Your task to perform on an android device: Open Maps and search for coffee Image 0: 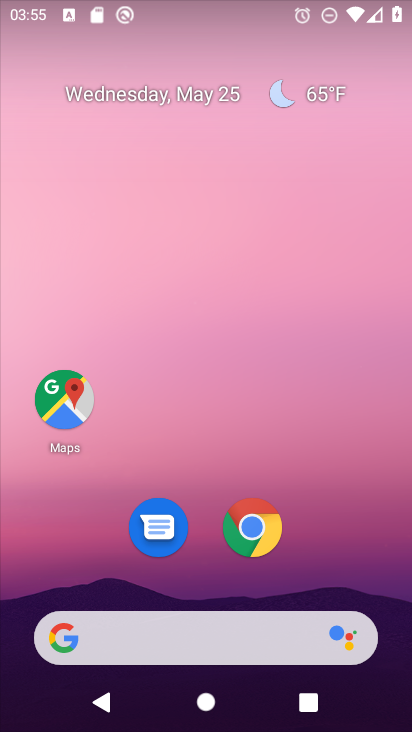
Step 0: drag from (168, 570) to (363, 0)
Your task to perform on an android device: Open Maps and search for coffee Image 1: 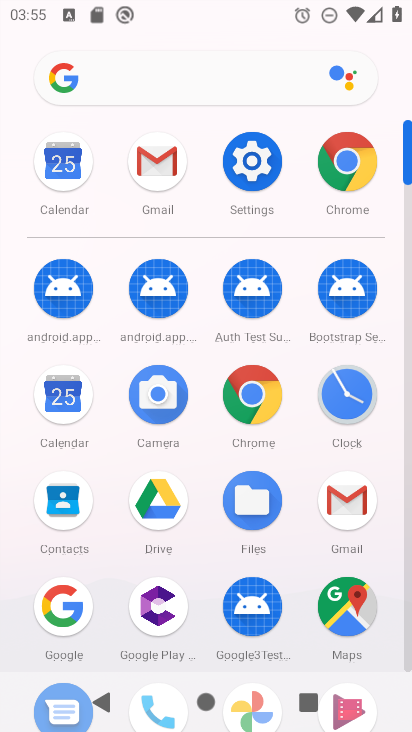
Step 1: click (358, 595)
Your task to perform on an android device: Open Maps and search for coffee Image 2: 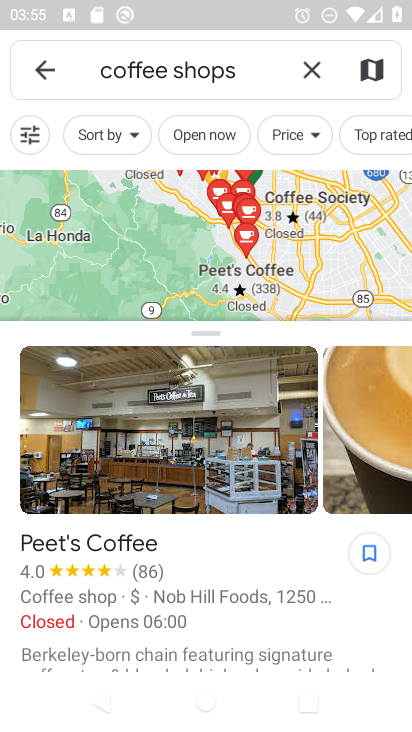
Step 2: press back button
Your task to perform on an android device: Open Maps and search for coffee Image 3: 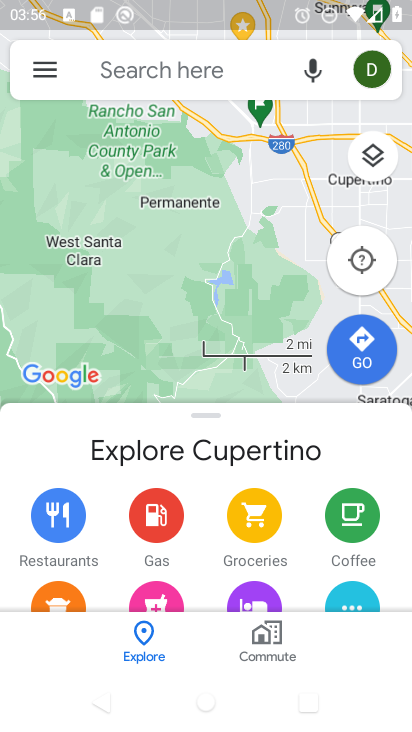
Step 3: click (28, 64)
Your task to perform on an android device: Open Maps and search for coffee Image 4: 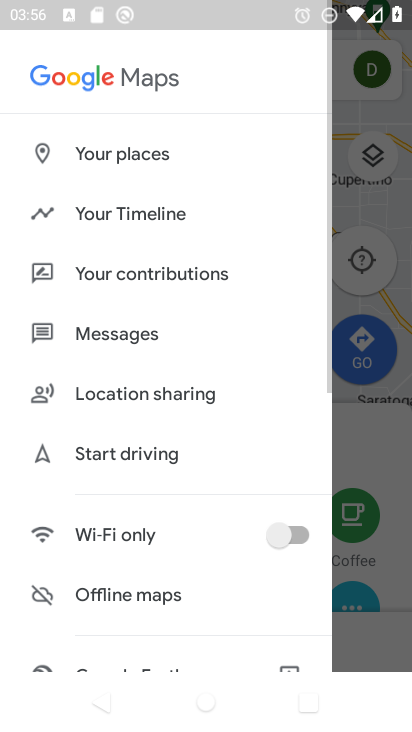
Step 4: drag from (213, 585) to (218, 274)
Your task to perform on an android device: Open Maps and search for coffee Image 5: 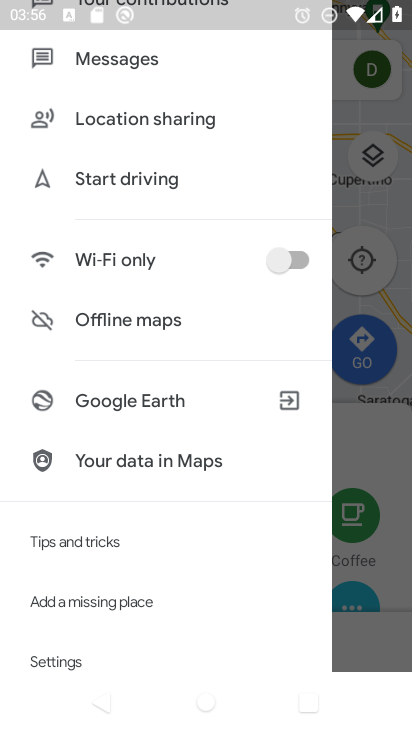
Step 5: click (403, 206)
Your task to perform on an android device: Open Maps and search for coffee Image 6: 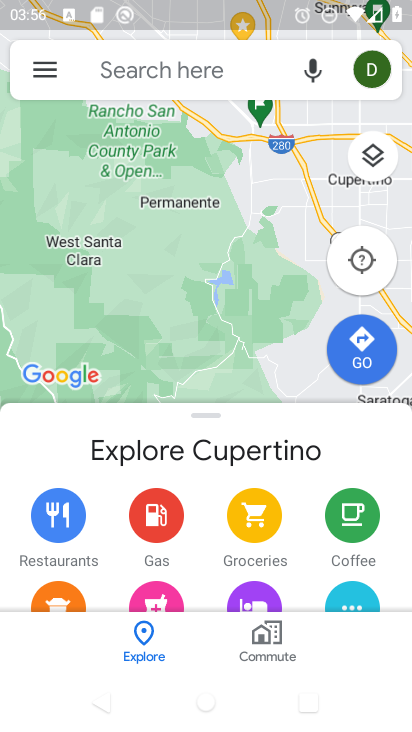
Step 6: click (226, 66)
Your task to perform on an android device: Open Maps and search for coffee Image 7: 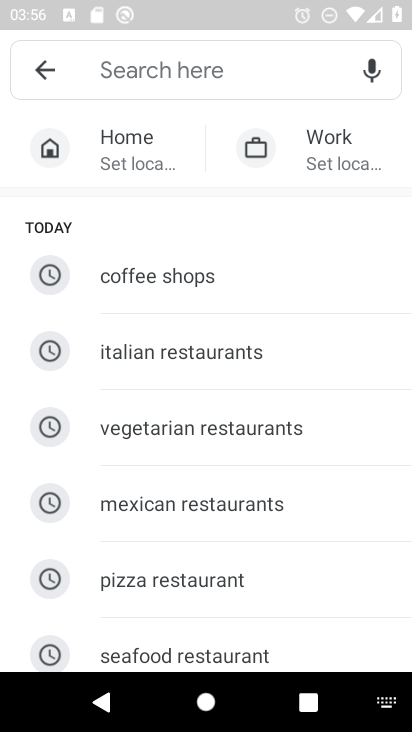
Step 7: type "coffee"
Your task to perform on an android device: Open Maps and search for coffee Image 8: 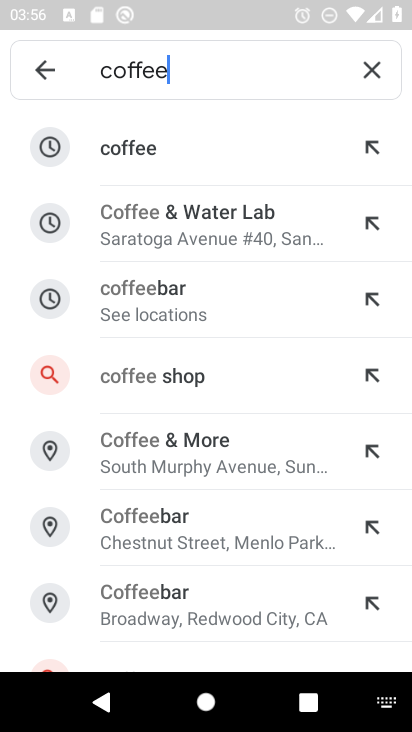
Step 8: click (205, 147)
Your task to perform on an android device: Open Maps and search for coffee Image 9: 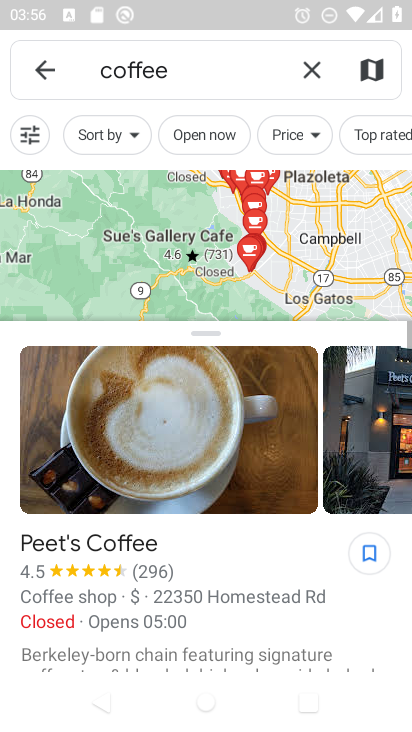
Step 9: task complete